Your task to perform on an android device: make emails show in primary in the gmail app Image 0: 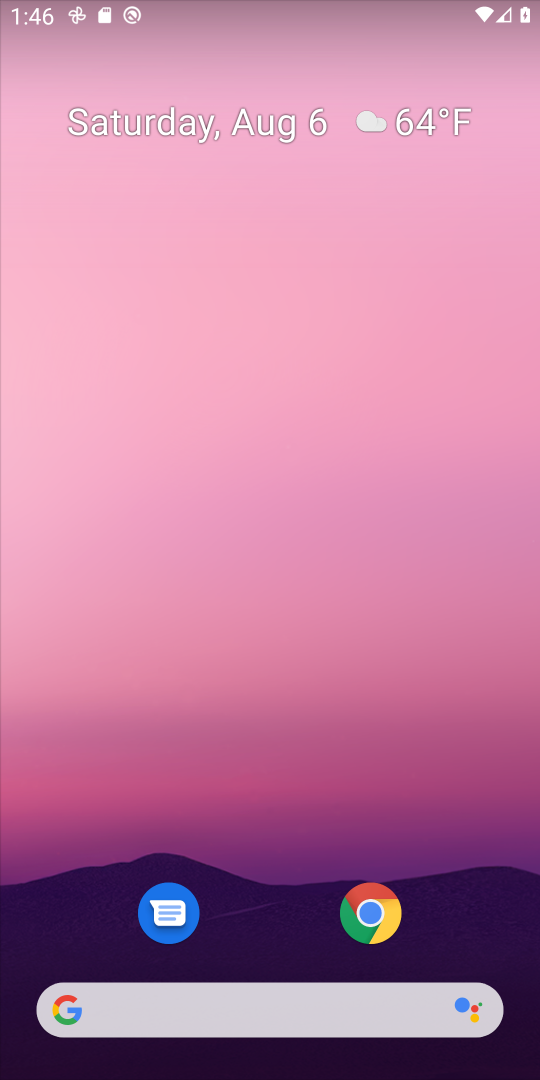
Step 0: press home button
Your task to perform on an android device: make emails show in primary in the gmail app Image 1: 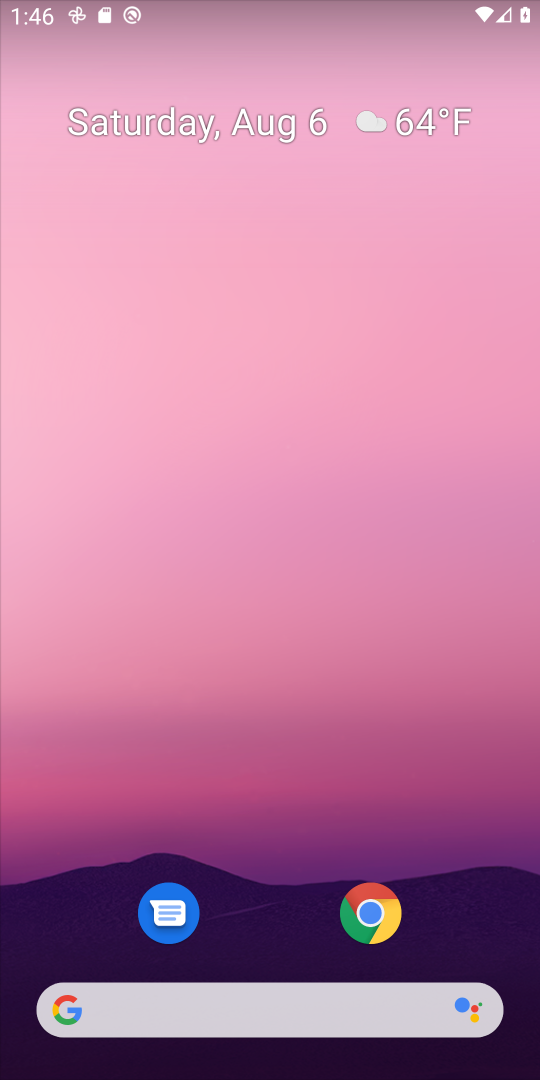
Step 1: drag from (457, 955) to (455, 422)
Your task to perform on an android device: make emails show in primary in the gmail app Image 2: 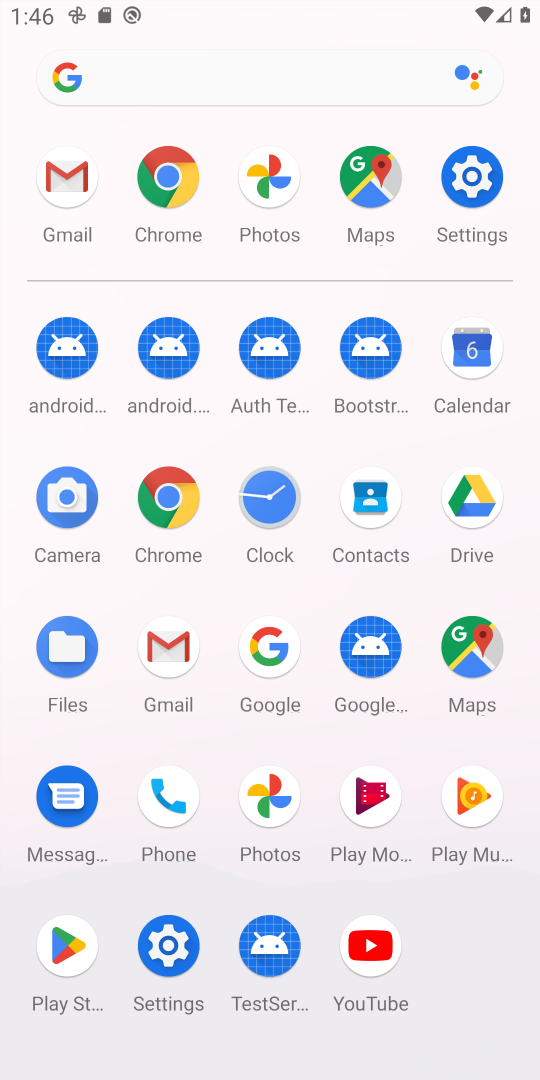
Step 2: click (173, 641)
Your task to perform on an android device: make emails show in primary in the gmail app Image 3: 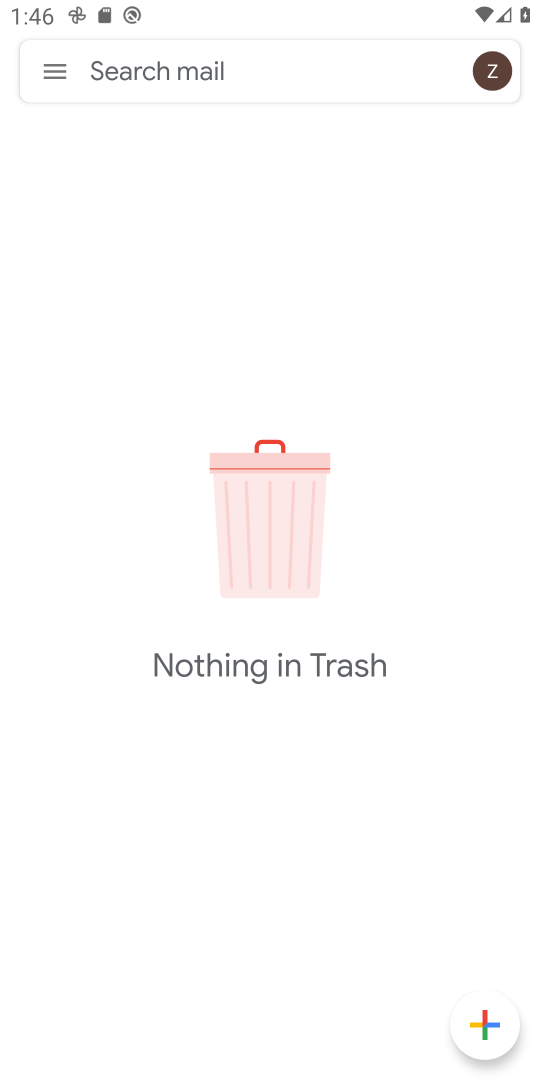
Step 3: click (44, 59)
Your task to perform on an android device: make emails show in primary in the gmail app Image 4: 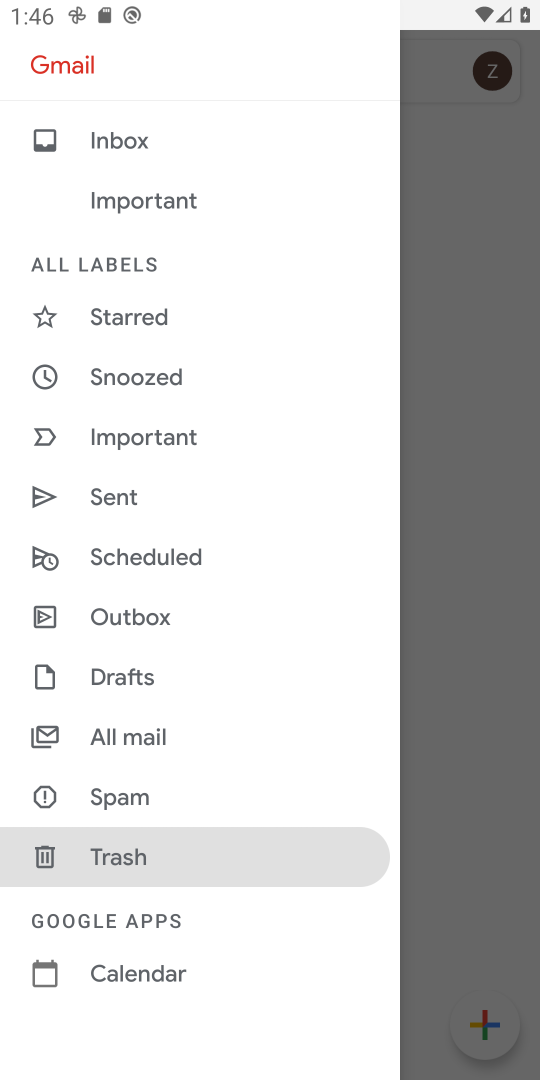
Step 4: drag from (281, 688) to (307, 415)
Your task to perform on an android device: make emails show in primary in the gmail app Image 5: 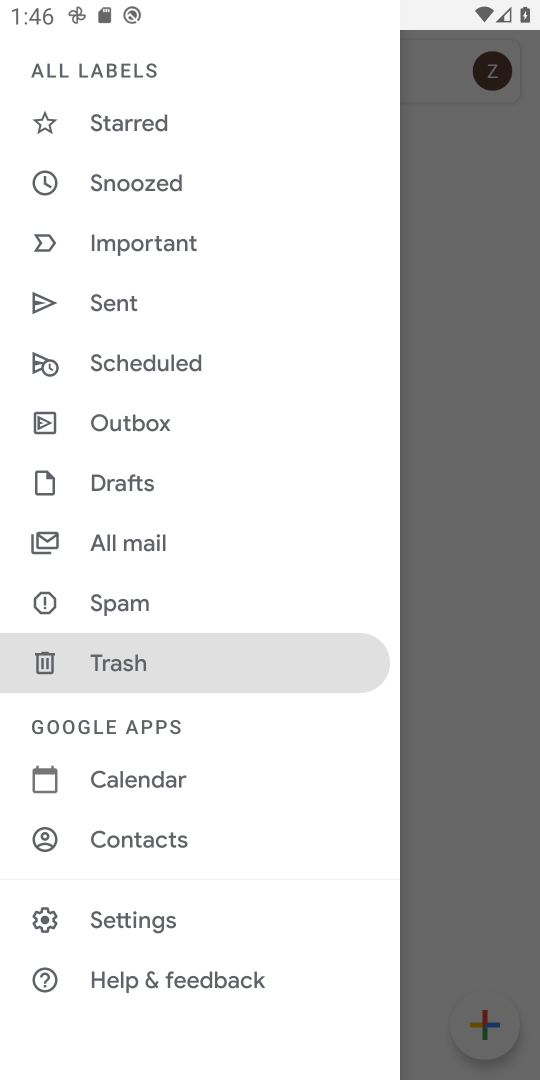
Step 5: click (210, 921)
Your task to perform on an android device: make emails show in primary in the gmail app Image 6: 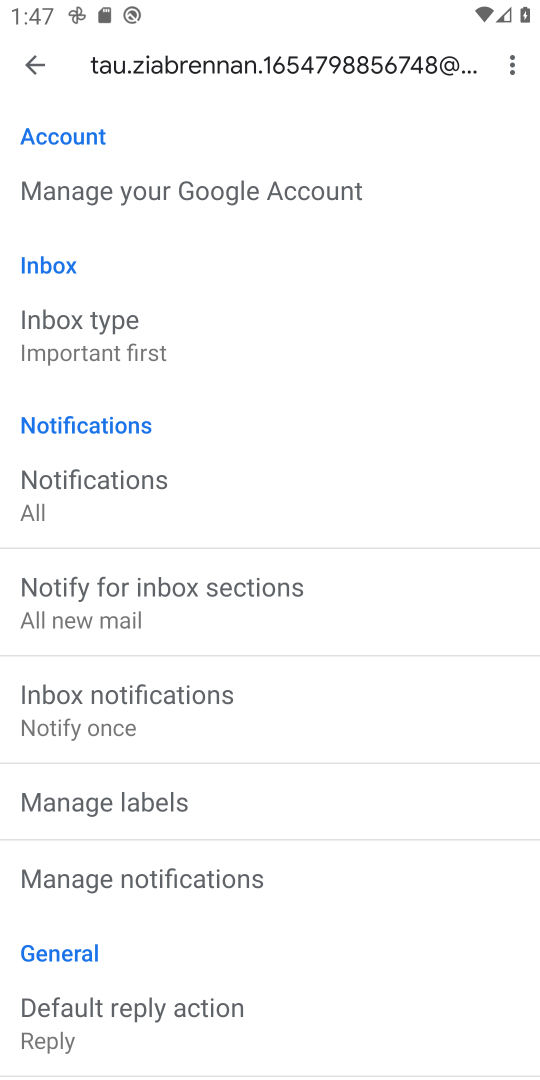
Step 6: click (131, 337)
Your task to perform on an android device: make emails show in primary in the gmail app Image 7: 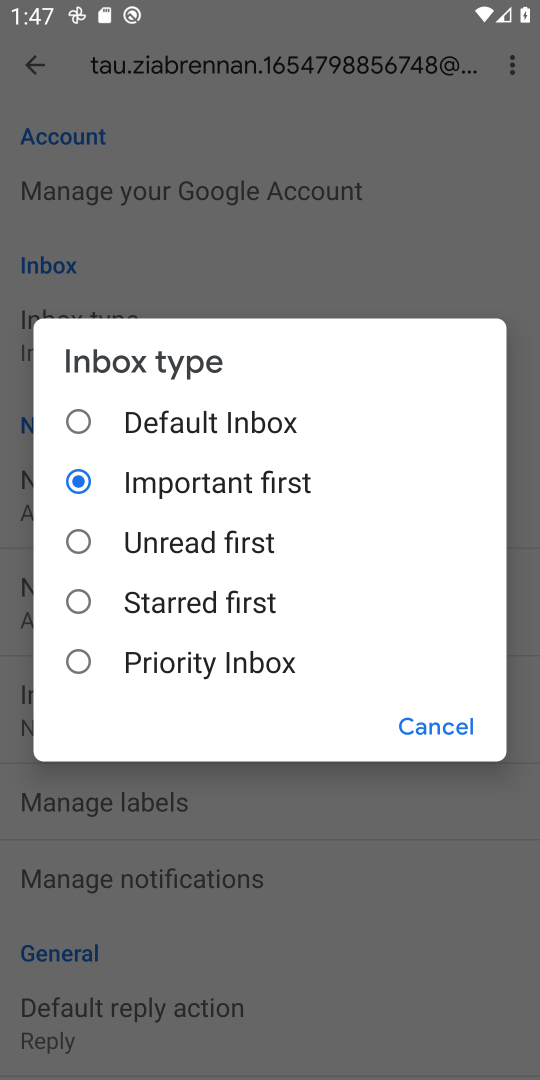
Step 7: click (79, 428)
Your task to perform on an android device: make emails show in primary in the gmail app Image 8: 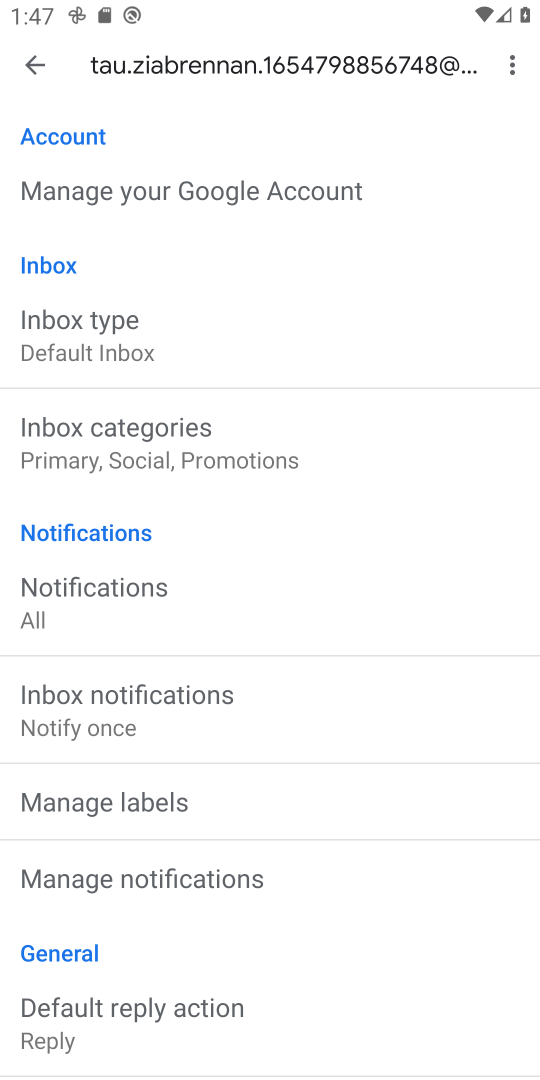
Step 8: click (217, 449)
Your task to perform on an android device: make emails show in primary in the gmail app Image 9: 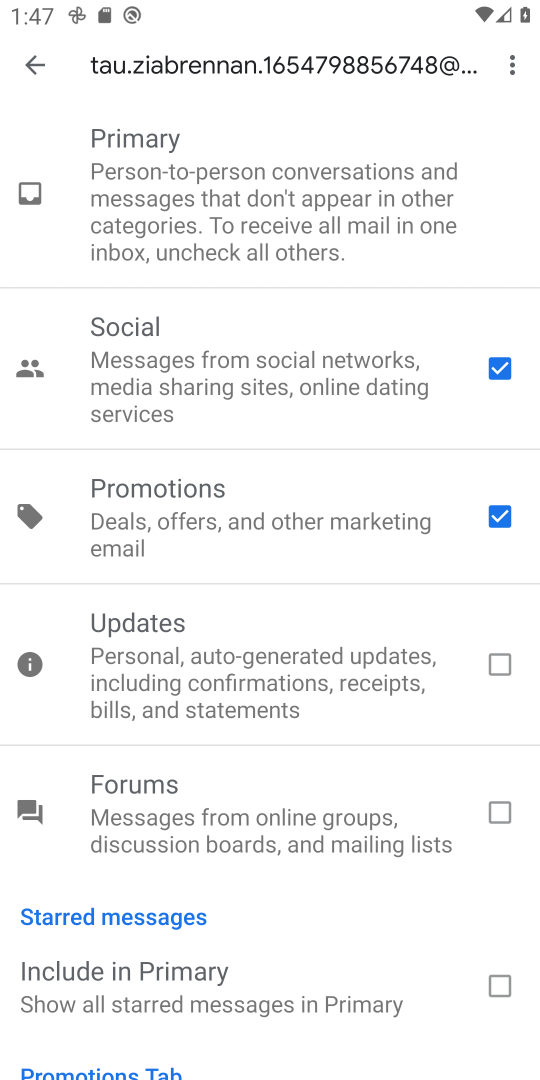
Step 9: click (495, 365)
Your task to perform on an android device: make emails show in primary in the gmail app Image 10: 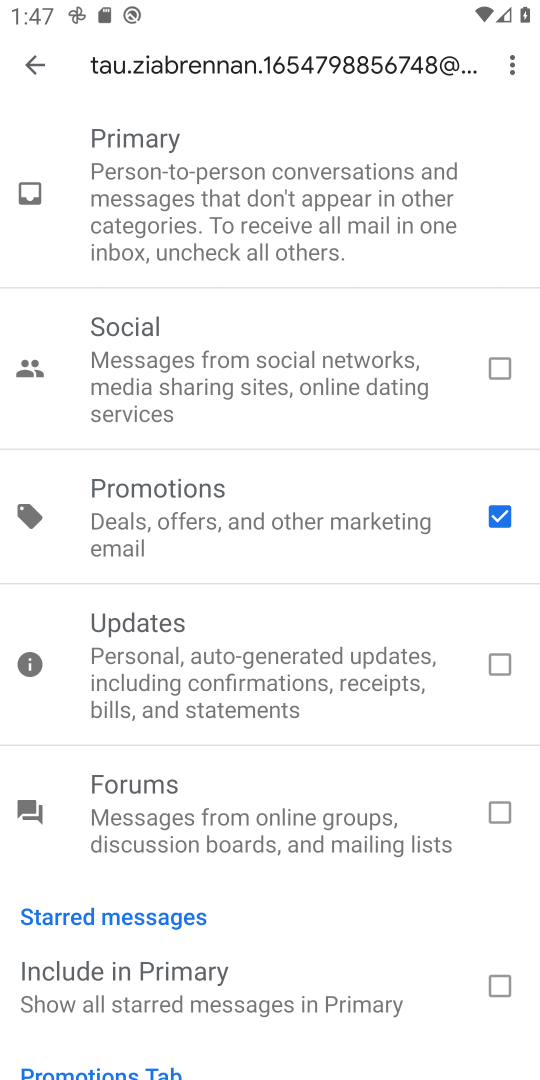
Step 10: click (501, 515)
Your task to perform on an android device: make emails show in primary in the gmail app Image 11: 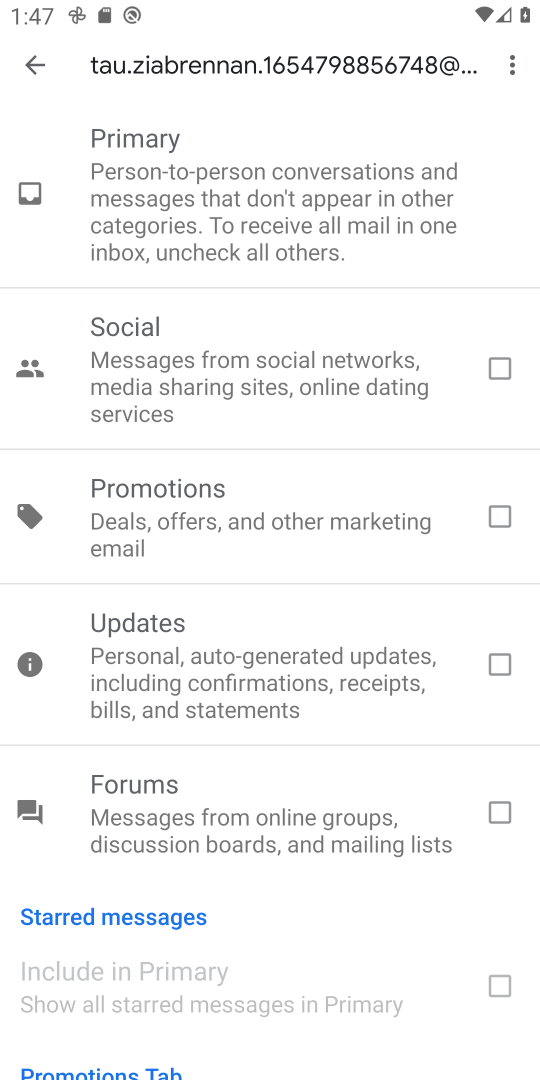
Step 11: task complete